Your task to perform on an android device: turn off smart reply in the gmail app Image 0: 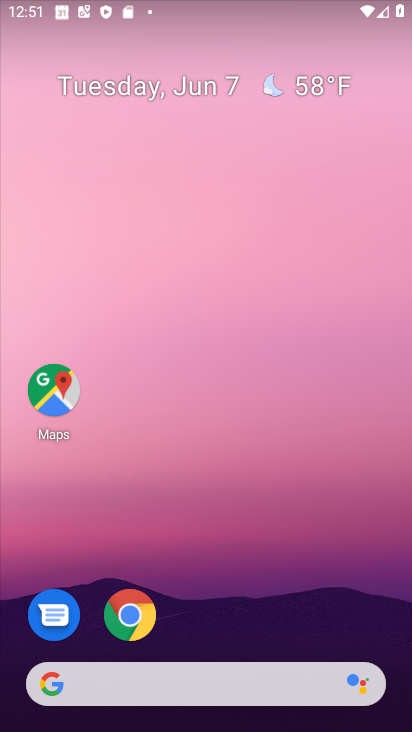
Step 0: drag from (245, 350) to (199, 24)
Your task to perform on an android device: turn off smart reply in the gmail app Image 1: 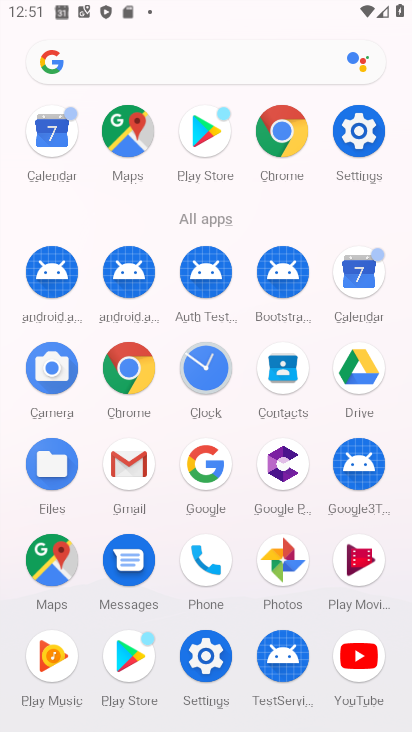
Step 1: click (127, 462)
Your task to perform on an android device: turn off smart reply in the gmail app Image 2: 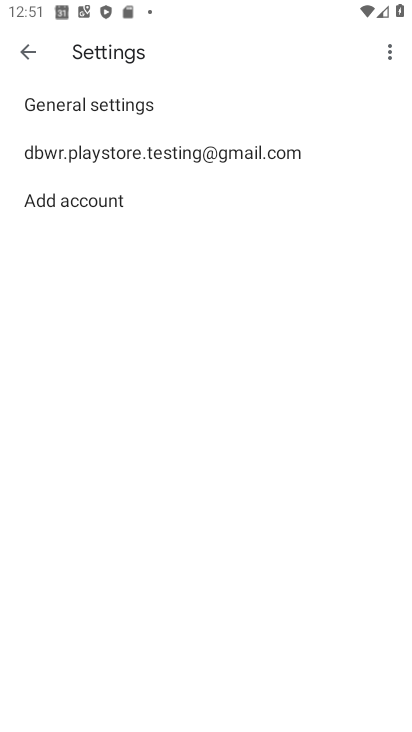
Step 2: click (258, 155)
Your task to perform on an android device: turn off smart reply in the gmail app Image 3: 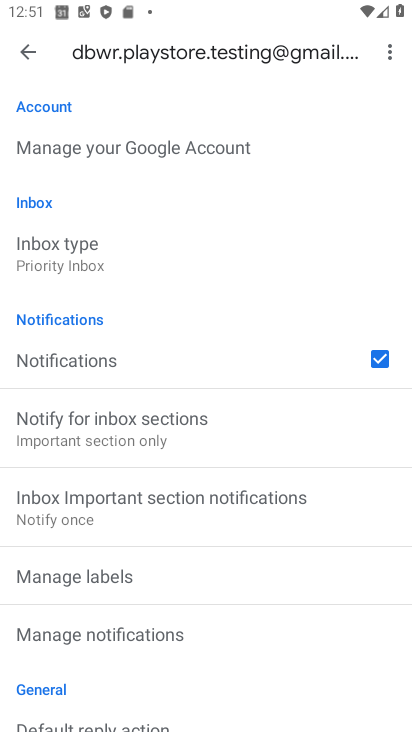
Step 3: drag from (177, 577) to (238, 331)
Your task to perform on an android device: turn off smart reply in the gmail app Image 4: 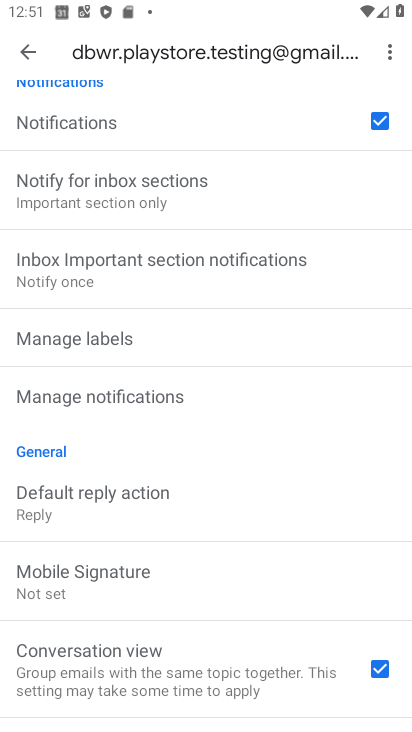
Step 4: drag from (186, 574) to (301, 296)
Your task to perform on an android device: turn off smart reply in the gmail app Image 5: 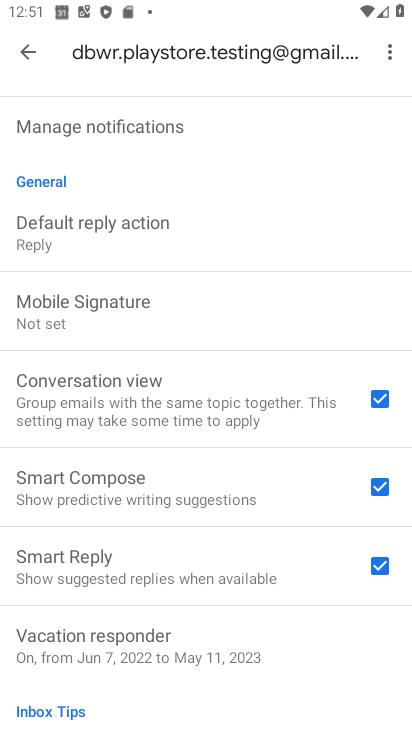
Step 5: click (383, 568)
Your task to perform on an android device: turn off smart reply in the gmail app Image 6: 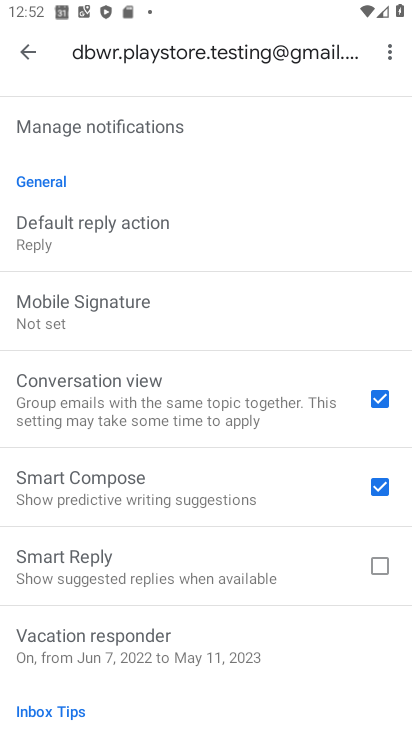
Step 6: task complete